Your task to perform on an android device: Open calendar and show me the fourth week of next month Image 0: 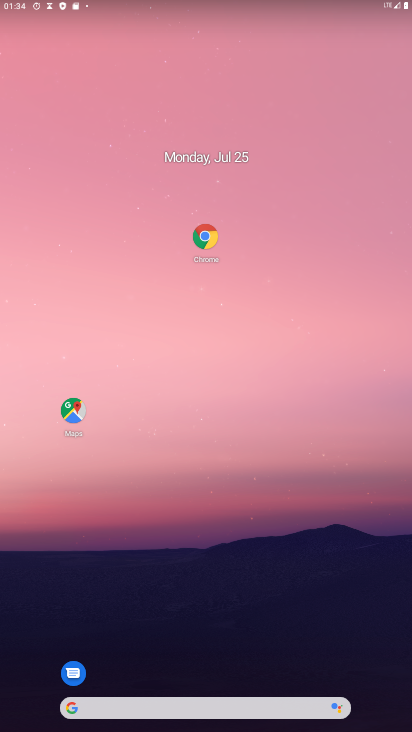
Step 0: drag from (186, 717) to (158, 31)
Your task to perform on an android device: Open calendar and show me the fourth week of next month Image 1: 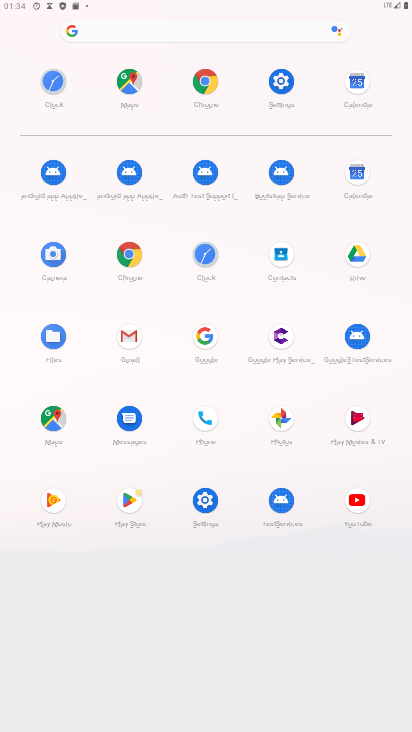
Step 1: click (368, 168)
Your task to perform on an android device: Open calendar and show me the fourth week of next month Image 2: 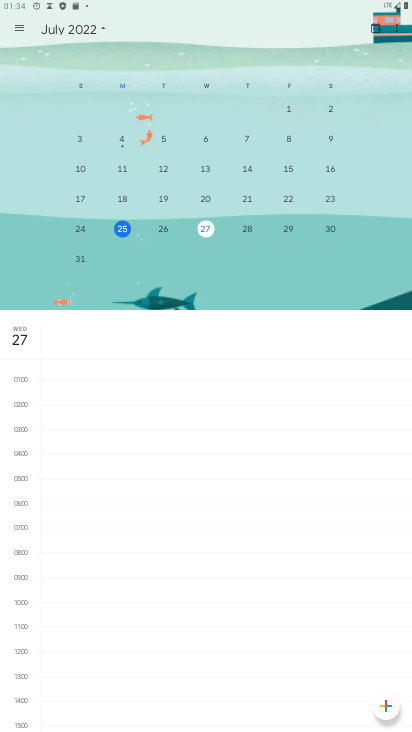
Step 2: drag from (385, 215) to (36, 216)
Your task to perform on an android device: Open calendar and show me the fourth week of next month Image 3: 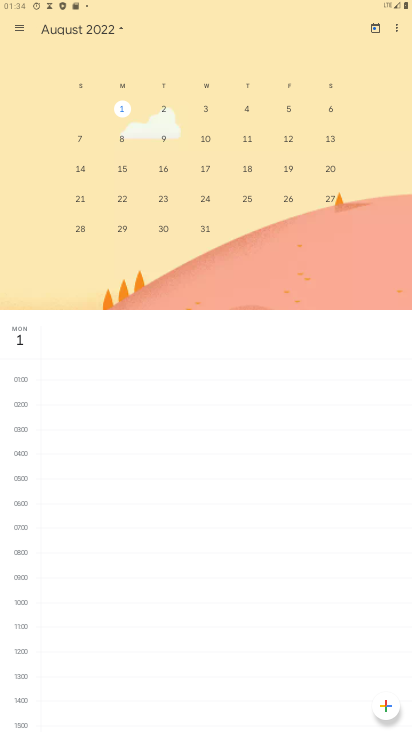
Step 3: click (204, 202)
Your task to perform on an android device: Open calendar and show me the fourth week of next month Image 4: 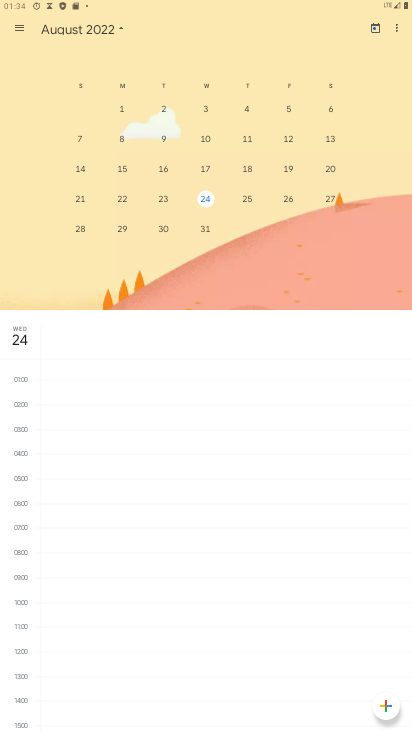
Step 4: click (11, 22)
Your task to perform on an android device: Open calendar and show me the fourth week of next month Image 5: 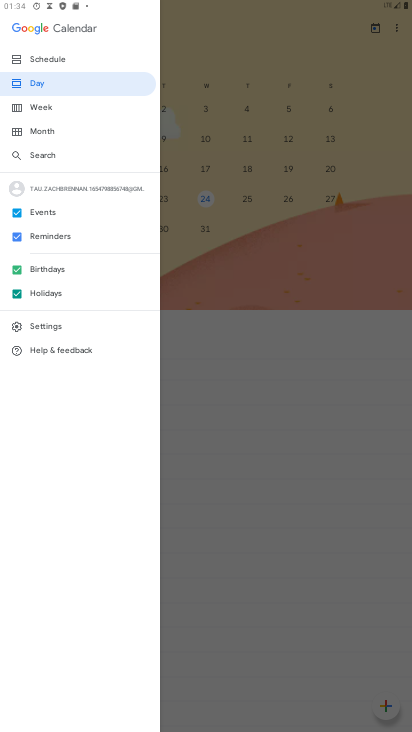
Step 5: click (64, 104)
Your task to perform on an android device: Open calendar and show me the fourth week of next month Image 6: 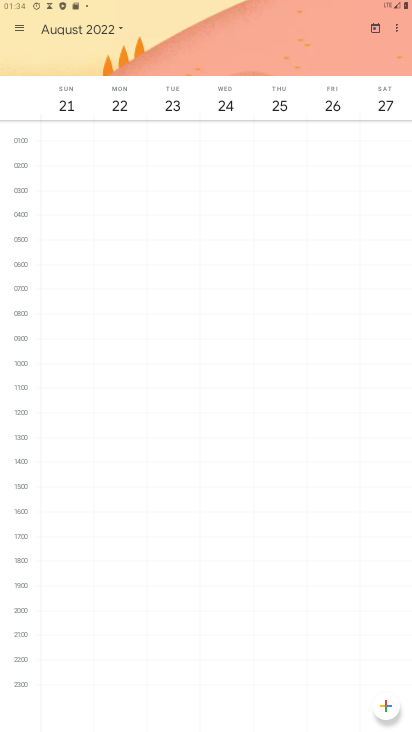
Step 6: task complete